Your task to perform on an android device: change timer sound Image 0: 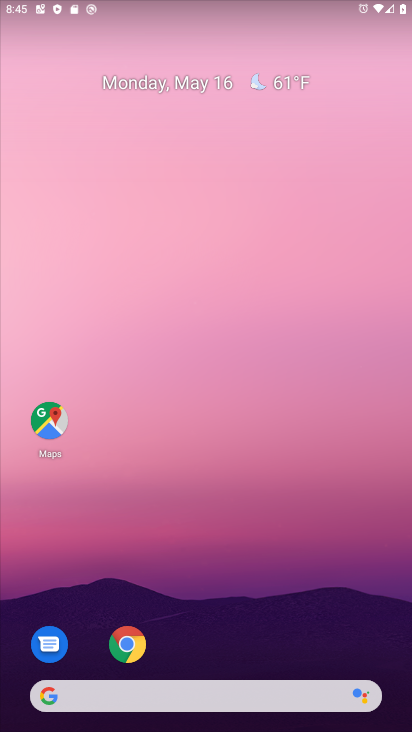
Step 0: drag from (250, 608) to (204, 135)
Your task to perform on an android device: change timer sound Image 1: 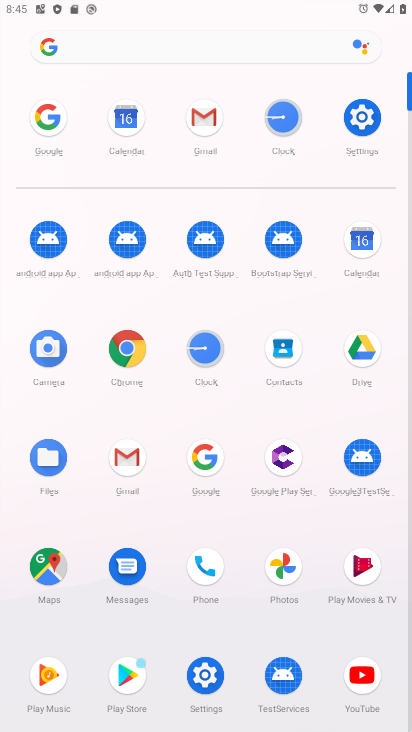
Step 1: click (286, 121)
Your task to perform on an android device: change timer sound Image 2: 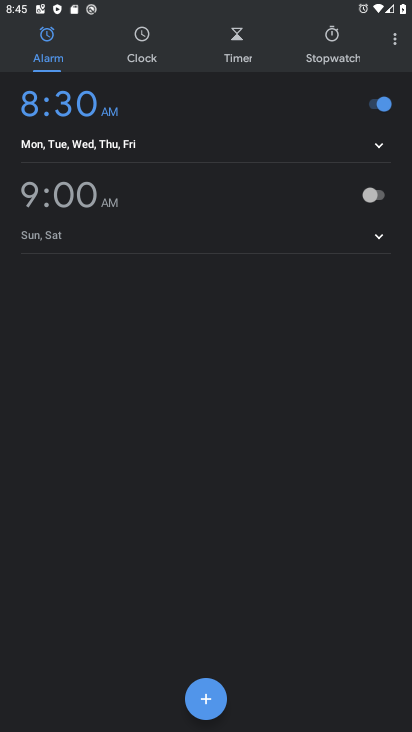
Step 2: click (389, 35)
Your task to perform on an android device: change timer sound Image 3: 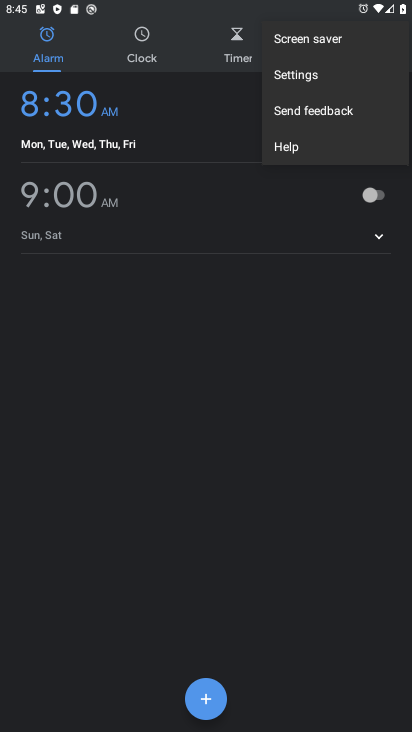
Step 3: click (309, 68)
Your task to perform on an android device: change timer sound Image 4: 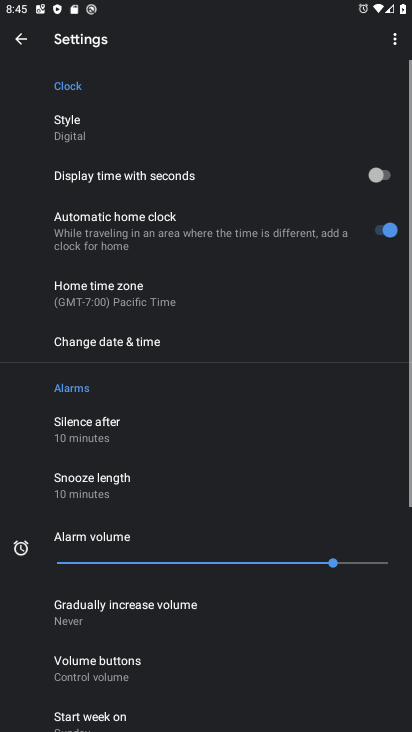
Step 4: drag from (221, 485) to (221, 51)
Your task to perform on an android device: change timer sound Image 5: 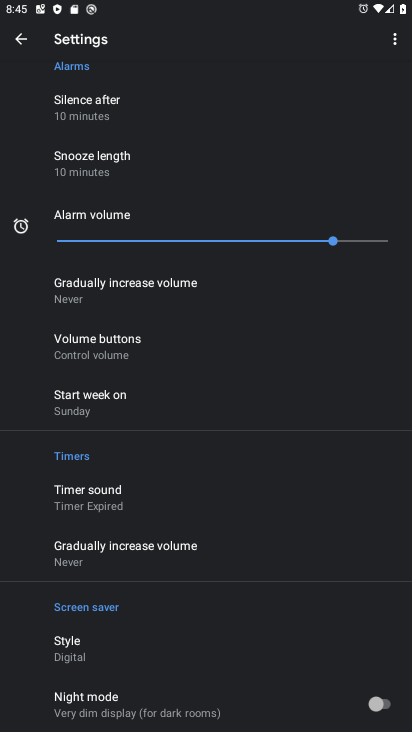
Step 5: click (102, 497)
Your task to perform on an android device: change timer sound Image 6: 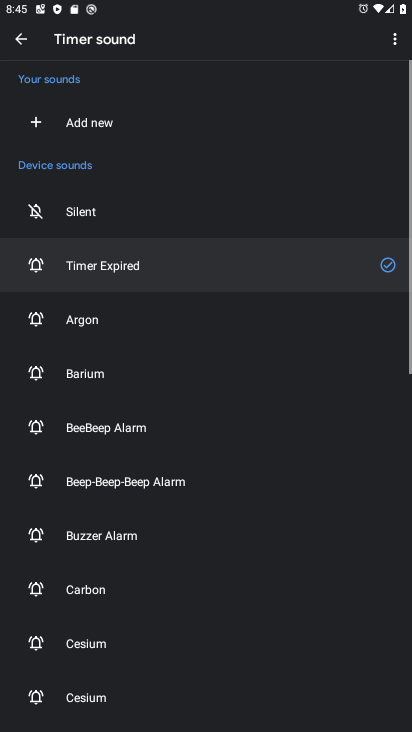
Step 6: click (101, 310)
Your task to perform on an android device: change timer sound Image 7: 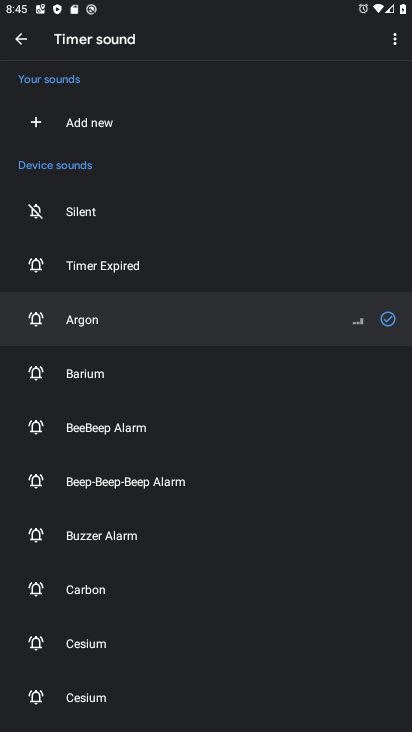
Step 7: task complete